Your task to perform on an android device: refresh tabs in the chrome app Image 0: 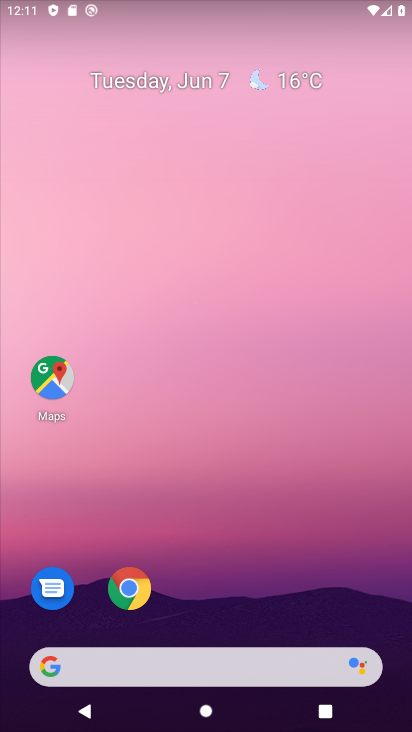
Step 0: task complete